Your task to perform on an android device: Clear the shopping cart on newegg. Image 0: 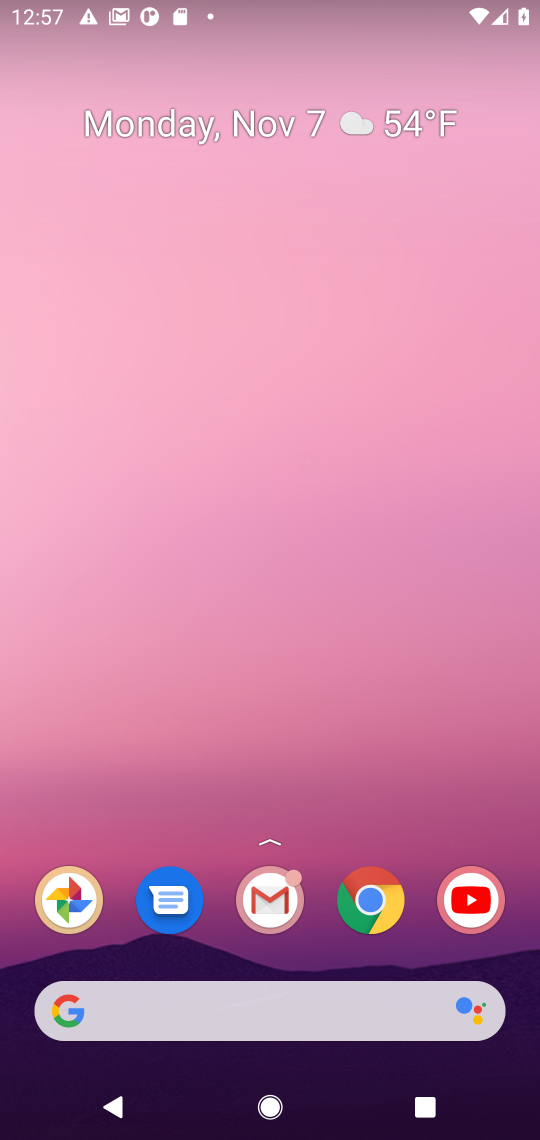
Step 0: click (210, 1034)
Your task to perform on an android device: Clear the shopping cart on newegg. Image 1: 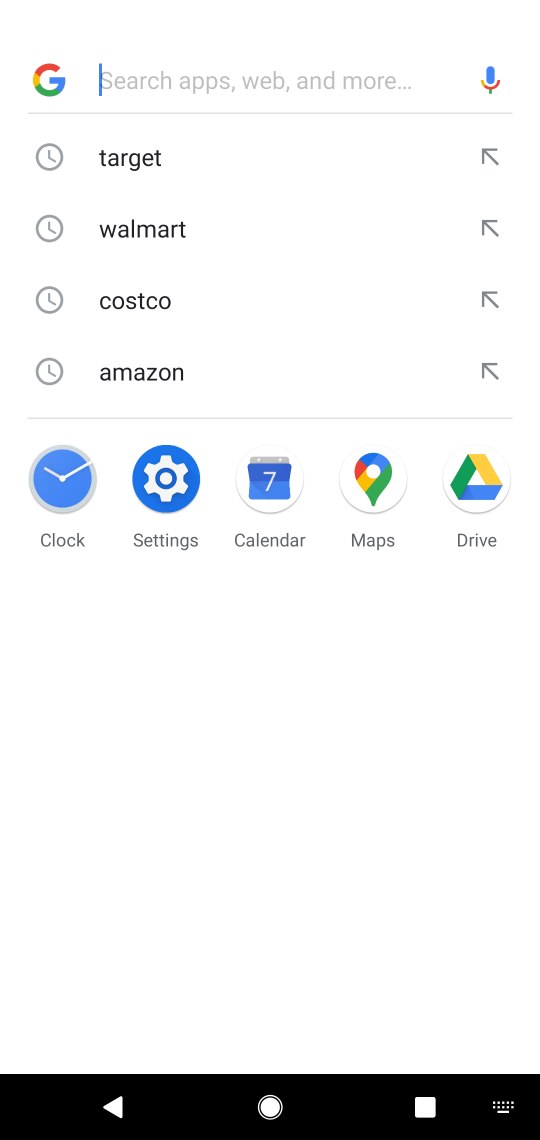
Step 1: type "newegg"
Your task to perform on an android device: Clear the shopping cart on newegg. Image 2: 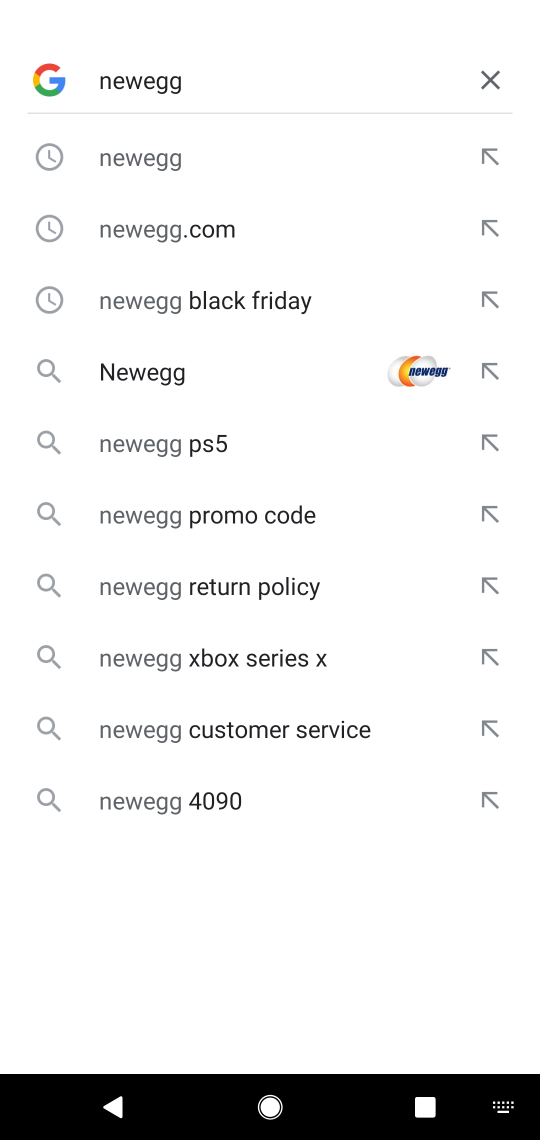
Step 2: click (160, 146)
Your task to perform on an android device: Clear the shopping cart on newegg. Image 3: 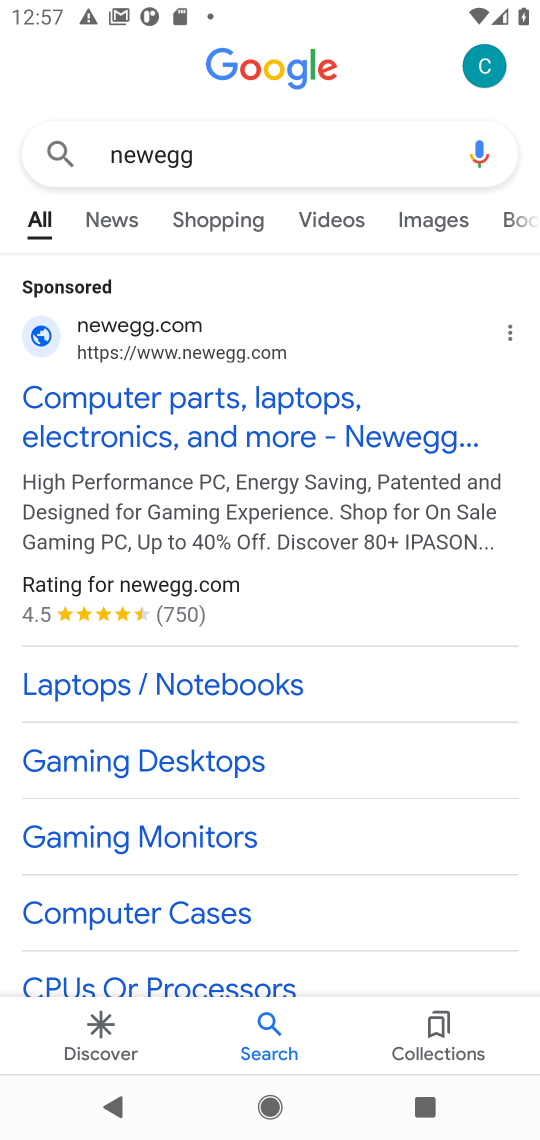
Step 3: click (182, 391)
Your task to perform on an android device: Clear the shopping cart on newegg. Image 4: 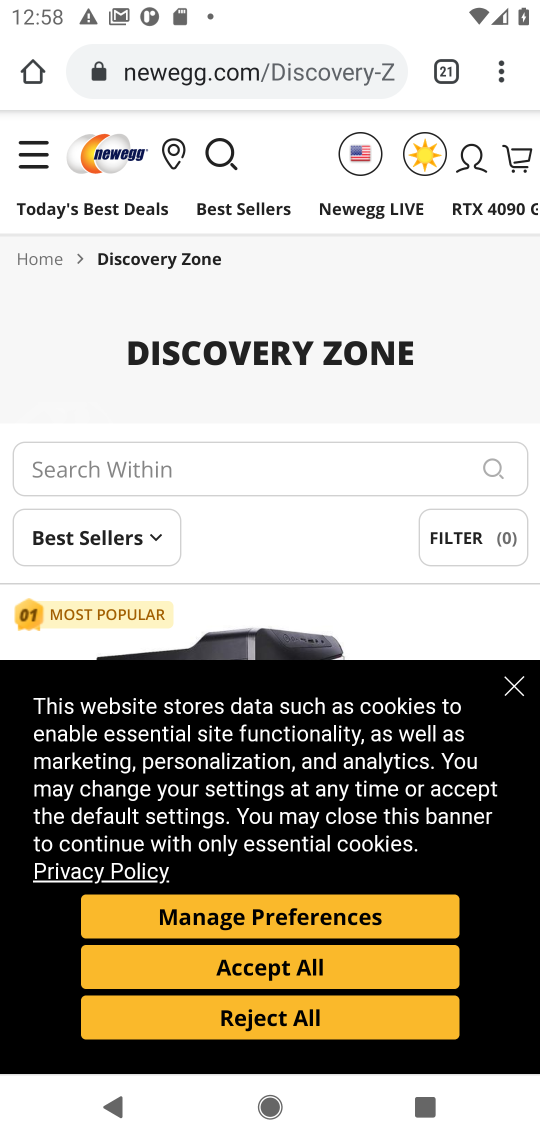
Step 4: task complete